Your task to perform on an android device: Do I have any events this weekend? Image 0: 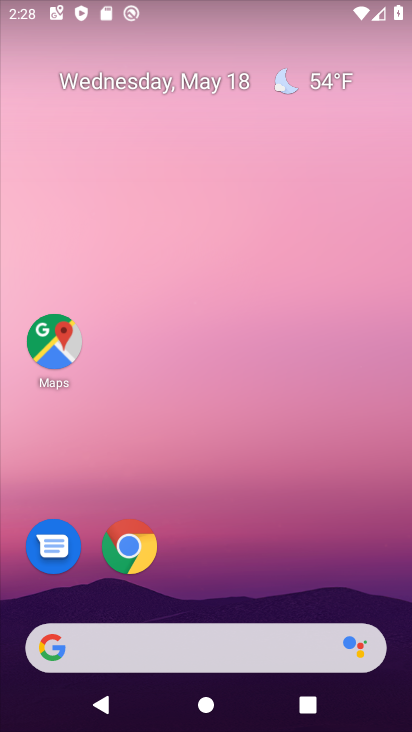
Step 0: press home button
Your task to perform on an android device: Do I have any events this weekend? Image 1: 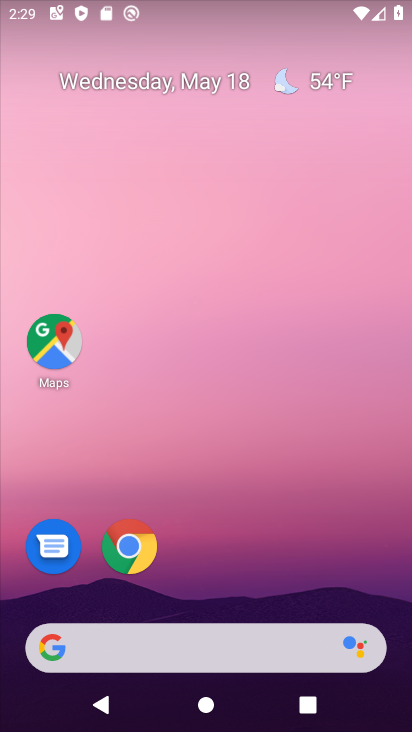
Step 1: drag from (312, 583) to (293, 265)
Your task to perform on an android device: Do I have any events this weekend? Image 2: 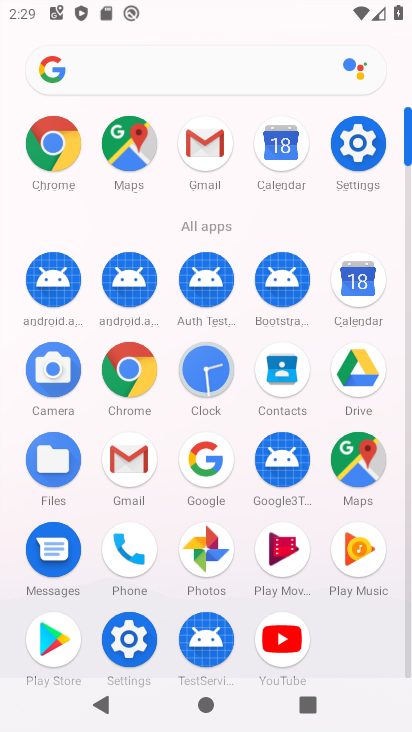
Step 2: click (361, 274)
Your task to perform on an android device: Do I have any events this weekend? Image 3: 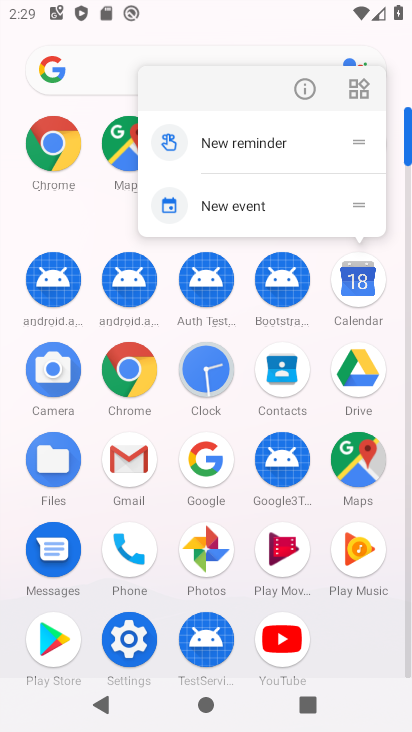
Step 3: click (361, 274)
Your task to perform on an android device: Do I have any events this weekend? Image 4: 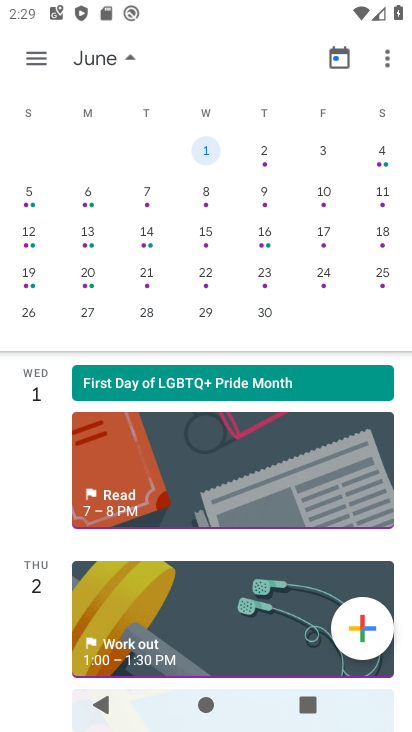
Step 4: drag from (34, 117) to (50, 297)
Your task to perform on an android device: Do I have any events this weekend? Image 5: 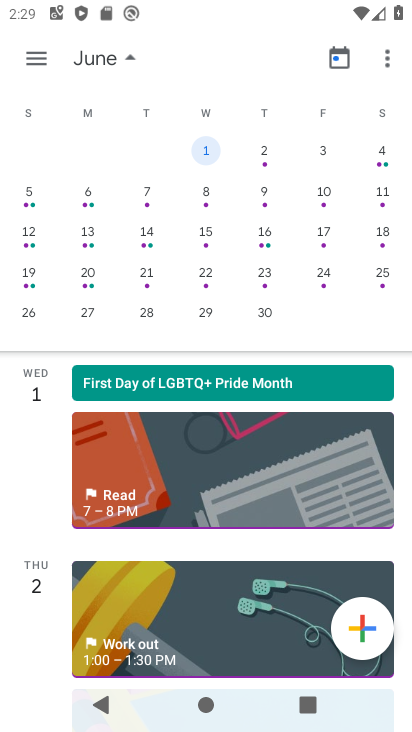
Step 5: drag from (92, 245) to (403, 184)
Your task to perform on an android device: Do I have any events this weekend? Image 6: 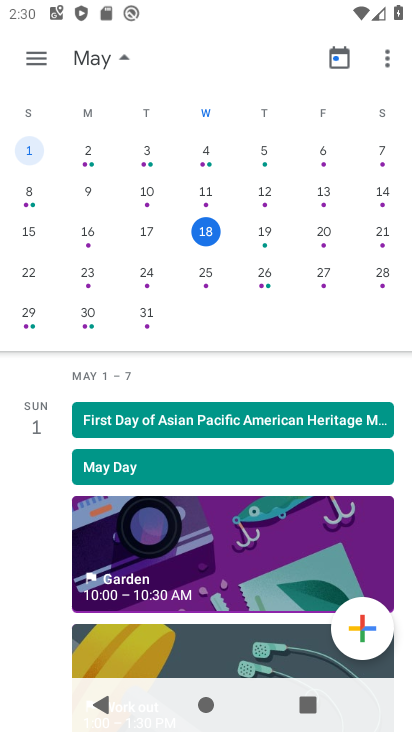
Step 6: click (83, 52)
Your task to perform on an android device: Do I have any events this weekend? Image 7: 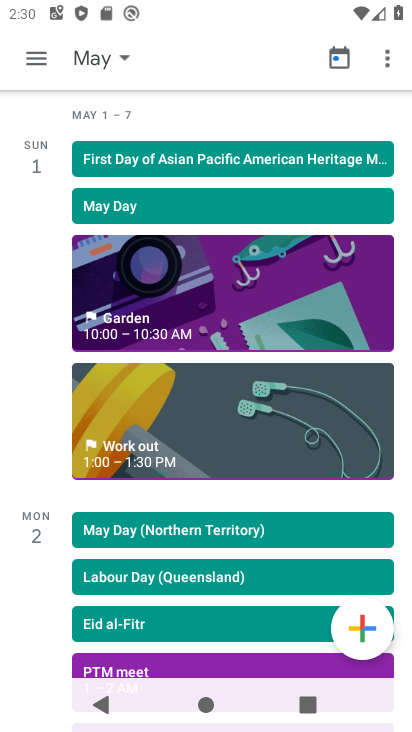
Step 7: task complete